Your task to perform on an android device: Go to display settings Image 0: 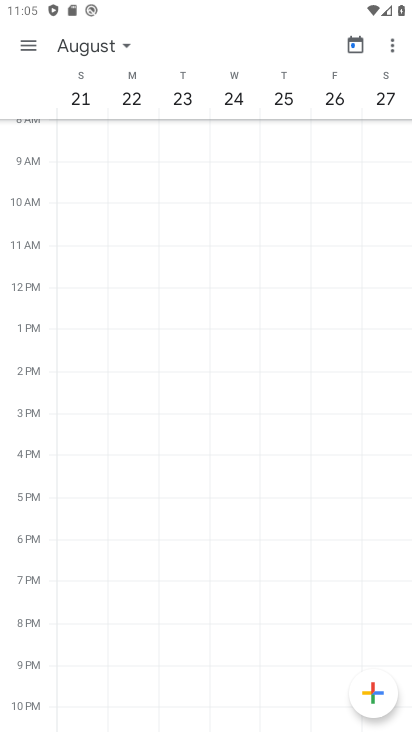
Step 0: press home button
Your task to perform on an android device: Go to display settings Image 1: 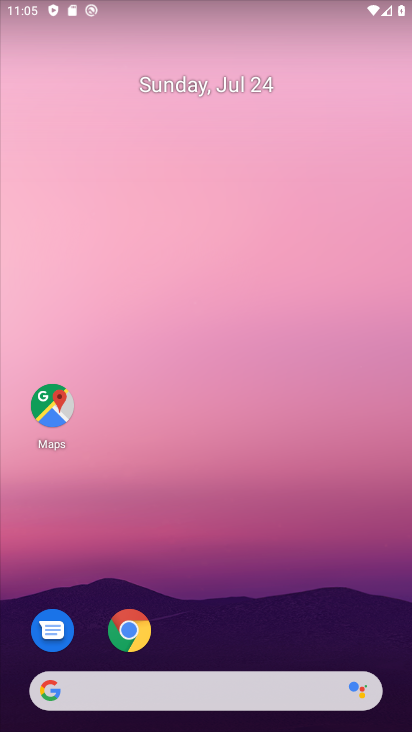
Step 1: drag from (177, 598) to (148, 176)
Your task to perform on an android device: Go to display settings Image 2: 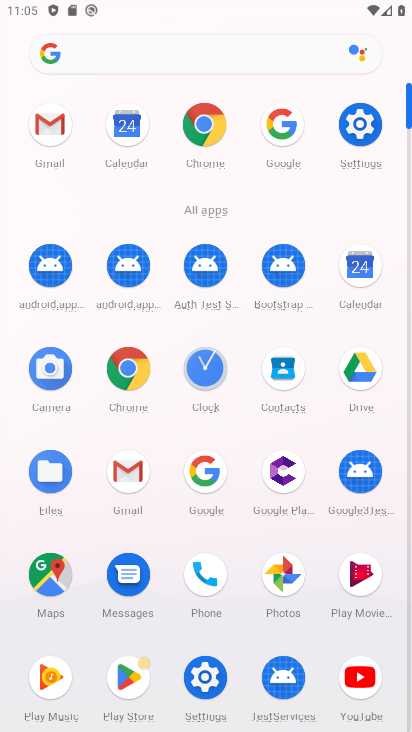
Step 2: click (351, 146)
Your task to perform on an android device: Go to display settings Image 3: 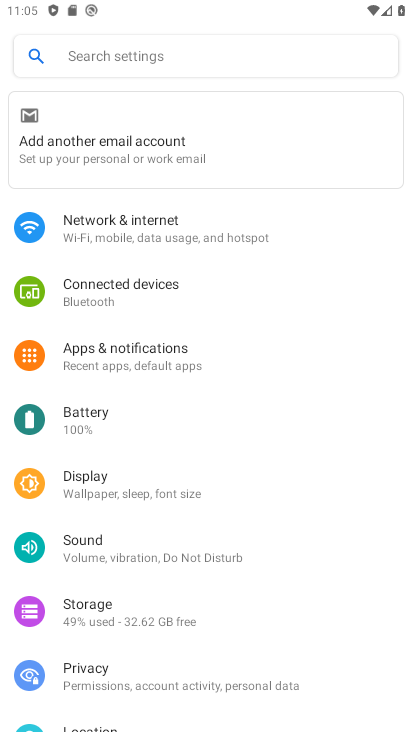
Step 3: click (70, 480)
Your task to perform on an android device: Go to display settings Image 4: 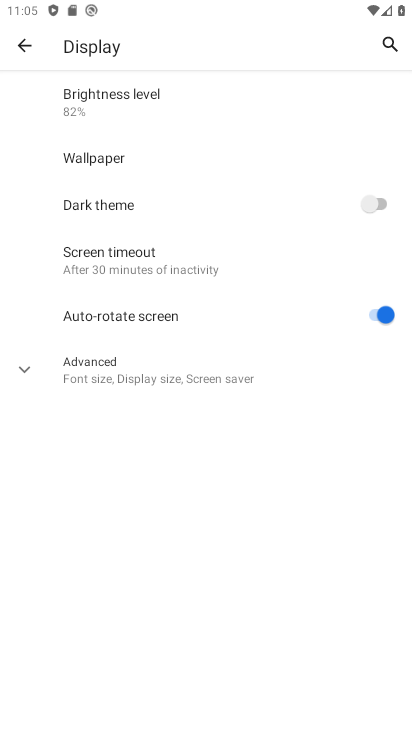
Step 4: task complete